Your task to perform on an android device: Open Youtube and go to "Your channel" Image 0: 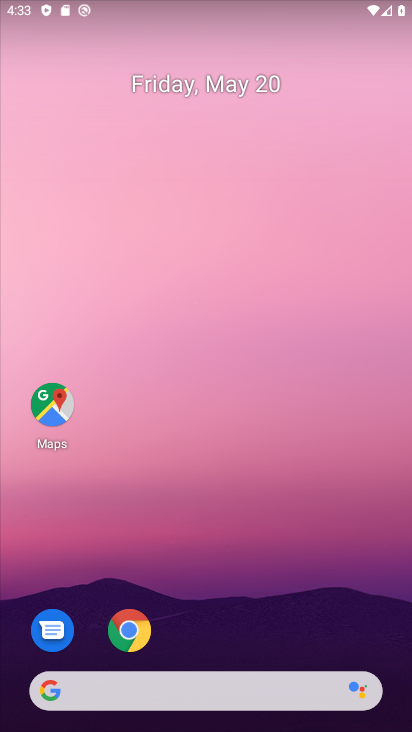
Step 0: drag from (254, 591) to (286, 114)
Your task to perform on an android device: Open Youtube and go to "Your channel" Image 1: 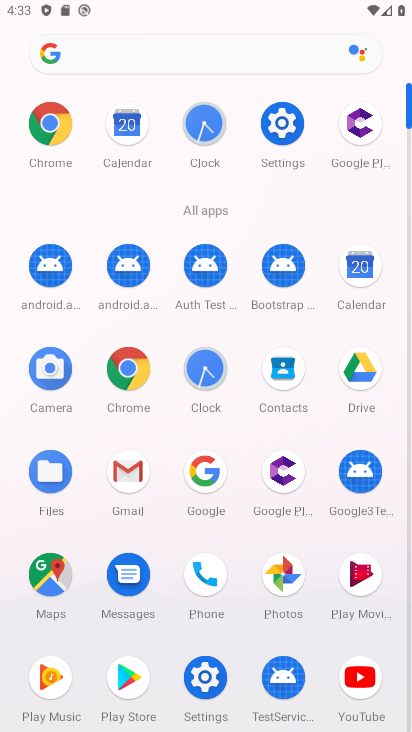
Step 1: click (366, 669)
Your task to perform on an android device: Open Youtube and go to "Your channel" Image 2: 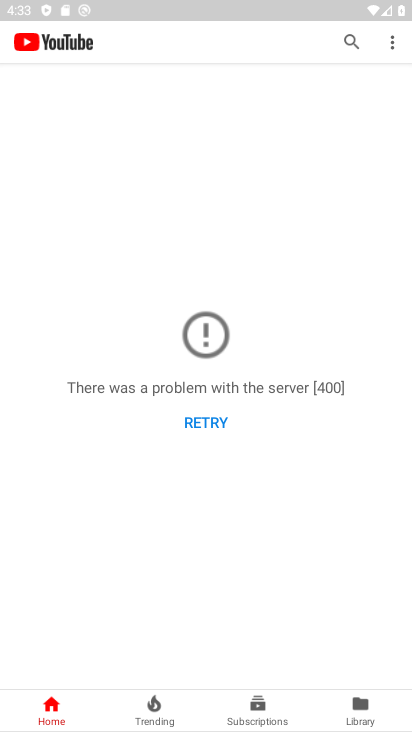
Step 2: task complete